Your task to perform on an android device: change the clock display to digital Image 0: 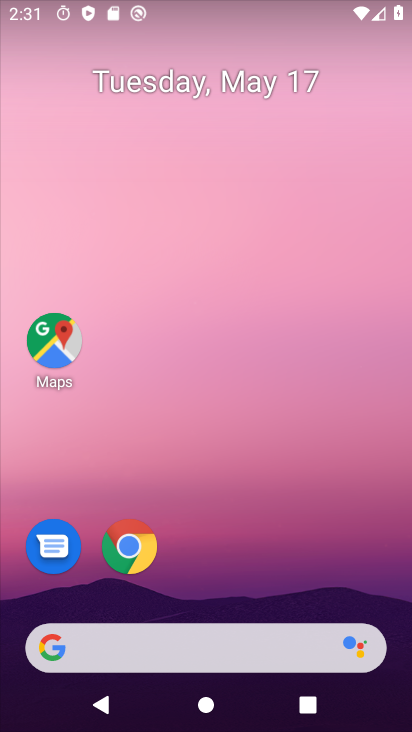
Step 0: drag from (255, 536) to (250, 208)
Your task to perform on an android device: change the clock display to digital Image 1: 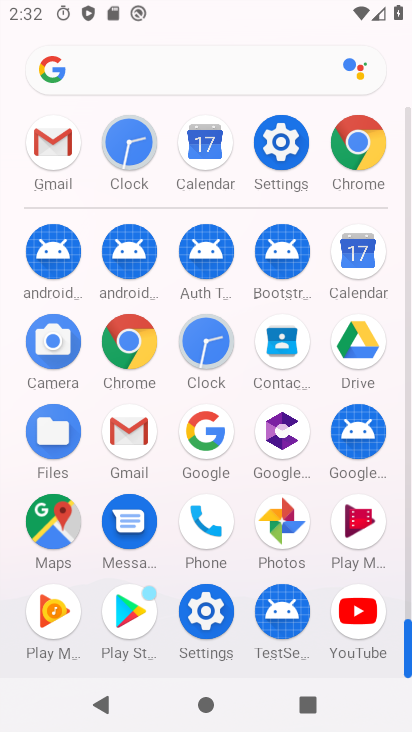
Step 1: click (215, 349)
Your task to perform on an android device: change the clock display to digital Image 2: 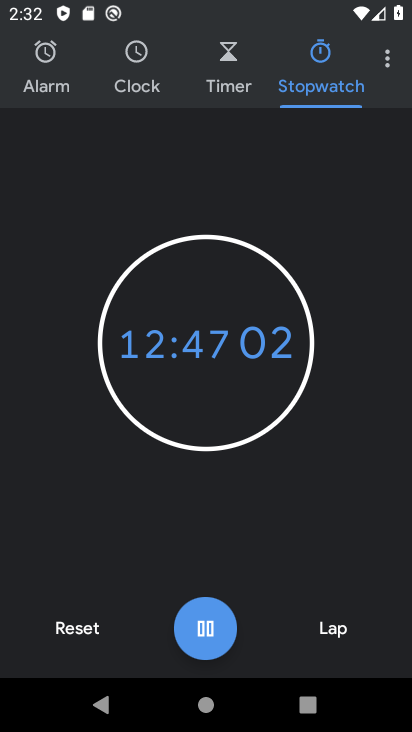
Step 2: click (394, 62)
Your task to perform on an android device: change the clock display to digital Image 3: 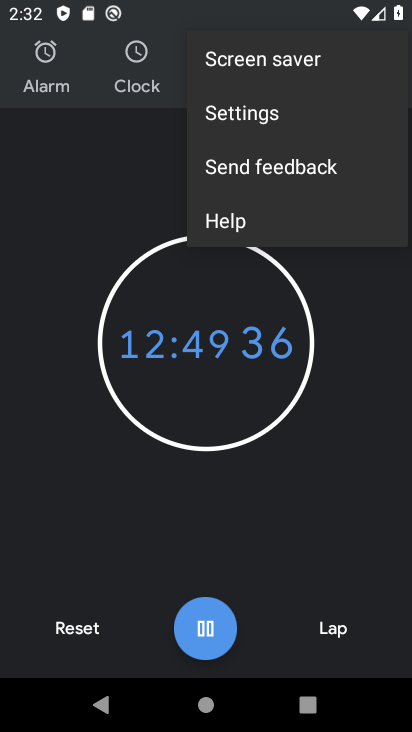
Step 3: click (286, 119)
Your task to perform on an android device: change the clock display to digital Image 4: 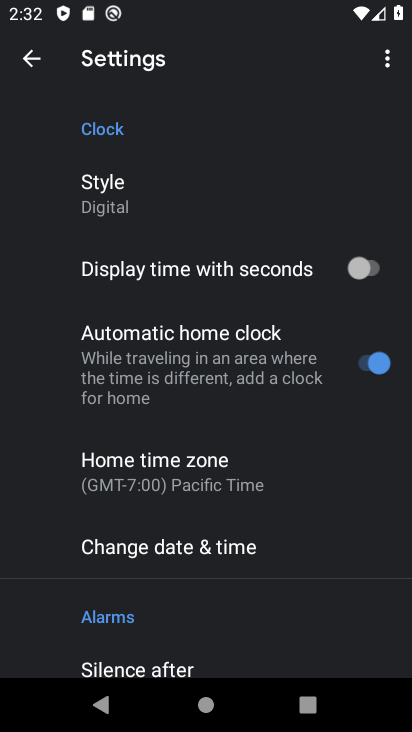
Step 4: task complete